Your task to perform on an android device: open a new tab in the chrome app Image 0: 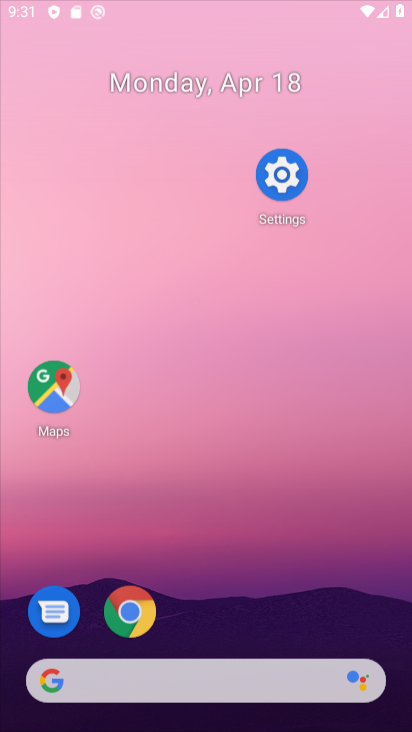
Step 0: click (143, 227)
Your task to perform on an android device: open a new tab in the chrome app Image 1: 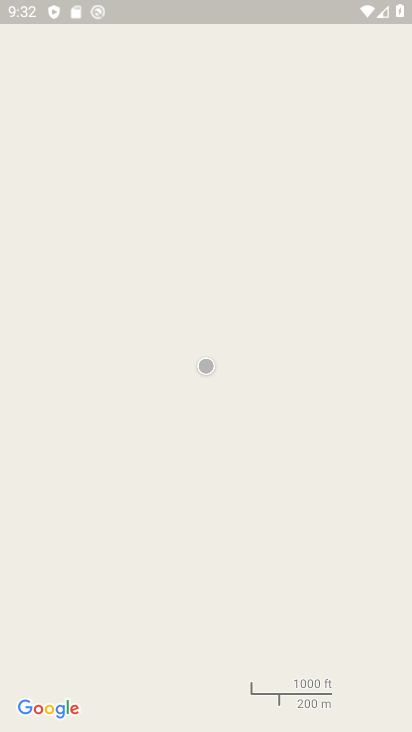
Step 1: press home button
Your task to perform on an android device: open a new tab in the chrome app Image 2: 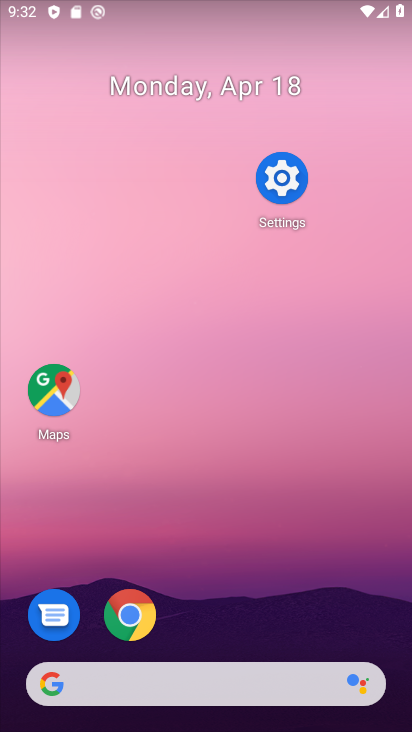
Step 2: drag from (299, 622) to (187, 0)
Your task to perform on an android device: open a new tab in the chrome app Image 3: 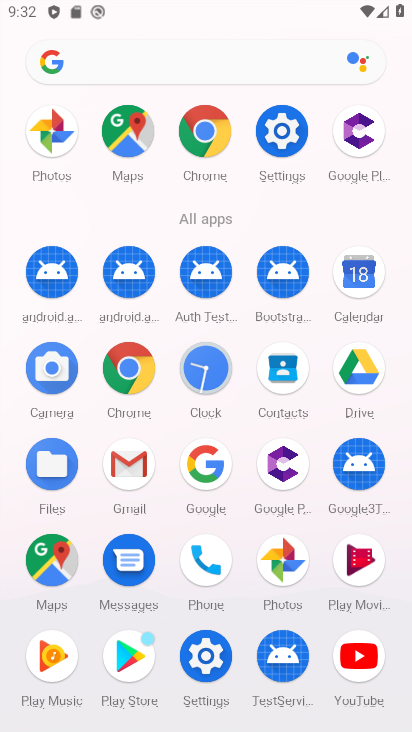
Step 3: click (203, 136)
Your task to perform on an android device: open a new tab in the chrome app Image 4: 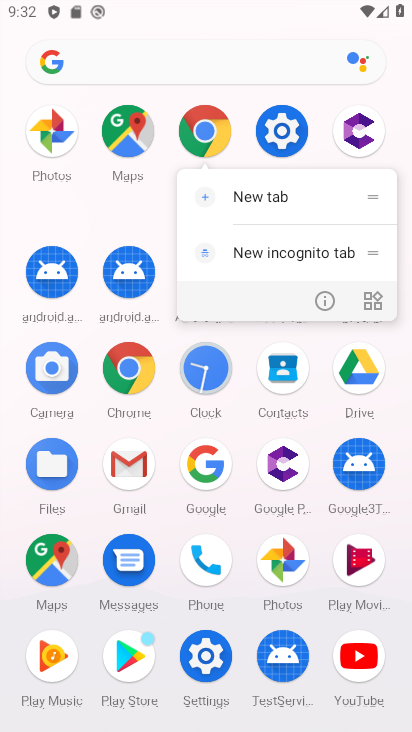
Step 4: click (203, 136)
Your task to perform on an android device: open a new tab in the chrome app Image 5: 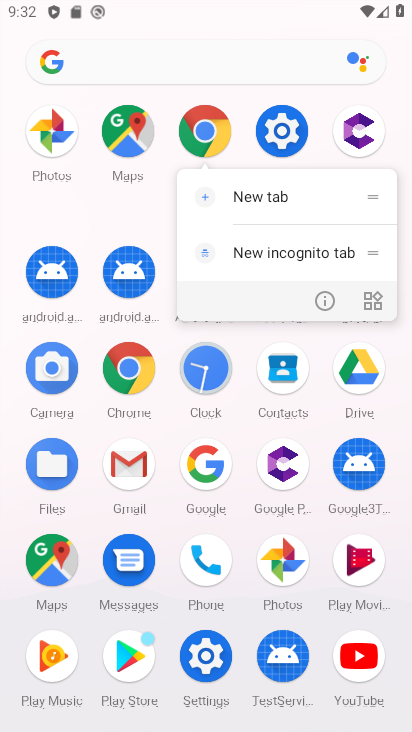
Step 5: click (223, 141)
Your task to perform on an android device: open a new tab in the chrome app Image 6: 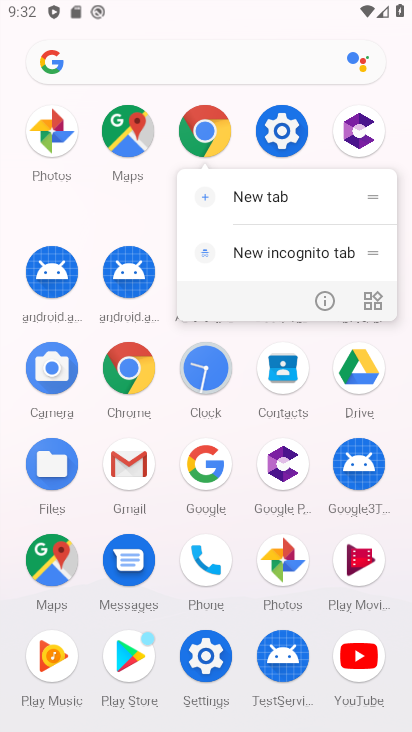
Step 6: click (207, 124)
Your task to perform on an android device: open a new tab in the chrome app Image 7: 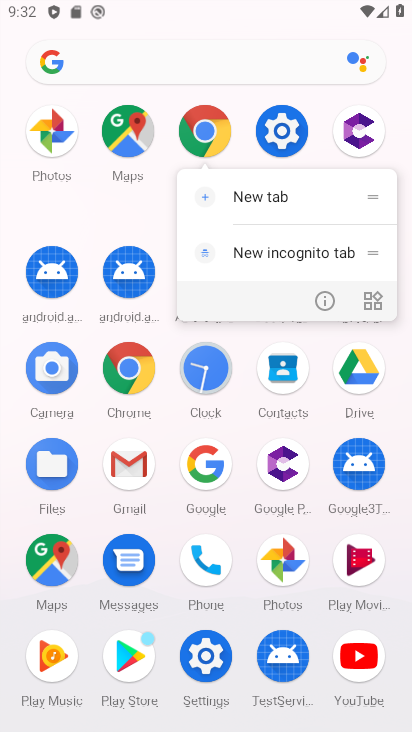
Step 7: click (207, 117)
Your task to perform on an android device: open a new tab in the chrome app Image 8: 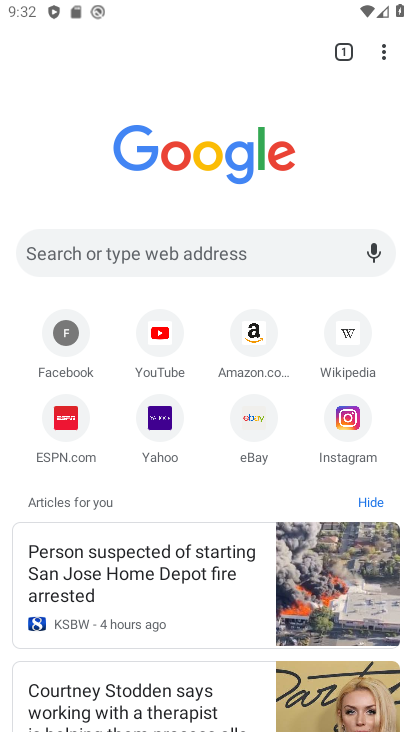
Step 8: click (385, 48)
Your task to perform on an android device: open a new tab in the chrome app Image 9: 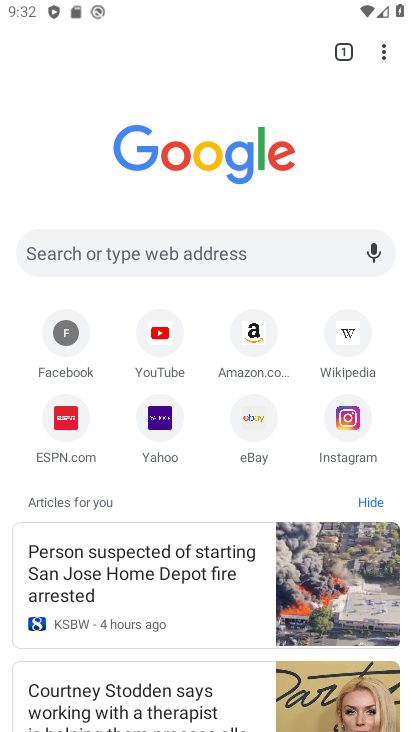
Step 9: click (384, 47)
Your task to perform on an android device: open a new tab in the chrome app Image 10: 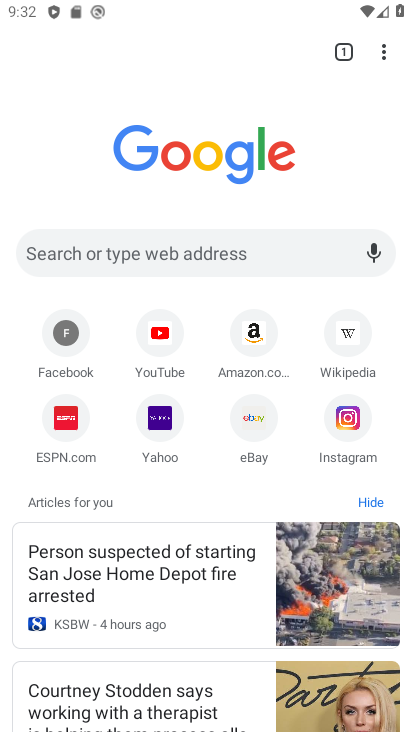
Step 10: drag from (384, 47) to (159, 524)
Your task to perform on an android device: open a new tab in the chrome app Image 11: 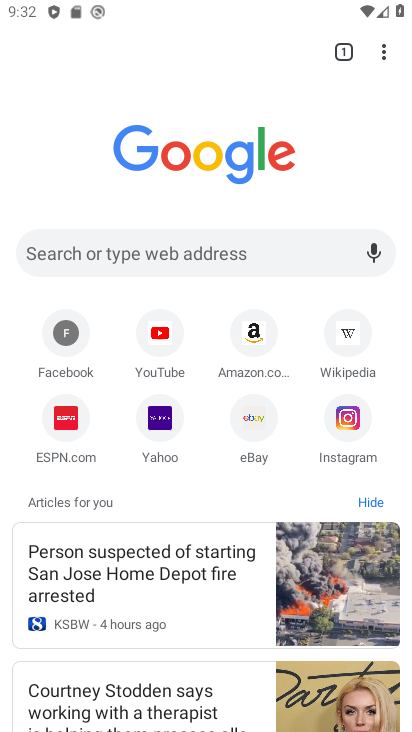
Step 11: drag from (381, 49) to (209, 515)
Your task to perform on an android device: open a new tab in the chrome app Image 12: 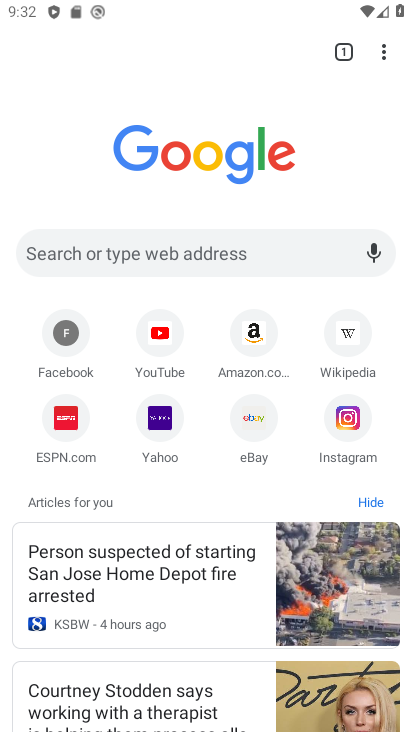
Step 12: click (374, 39)
Your task to perform on an android device: open a new tab in the chrome app Image 13: 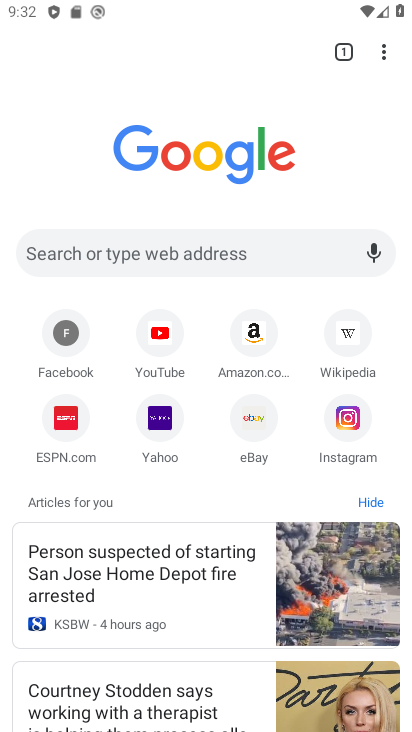
Step 13: click (391, 34)
Your task to perform on an android device: open a new tab in the chrome app Image 14: 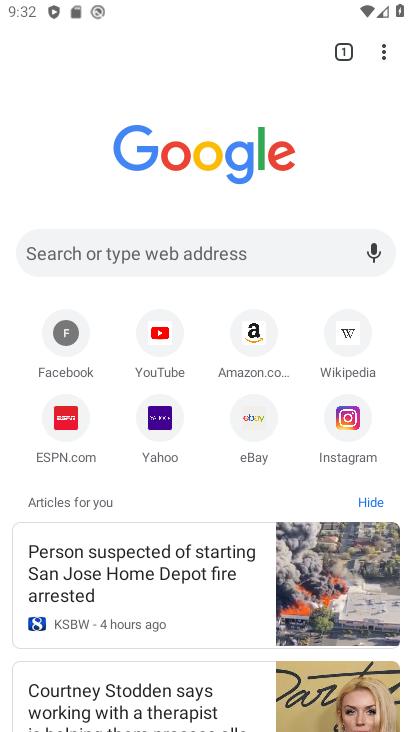
Step 14: click (228, 99)
Your task to perform on an android device: open a new tab in the chrome app Image 15: 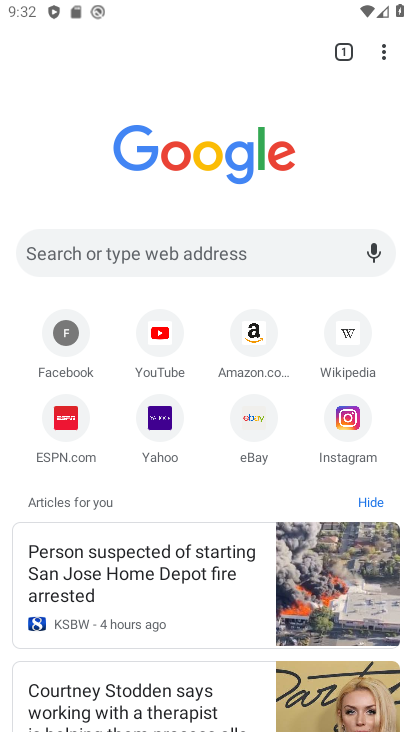
Step 15: click (379, 53)
Your task to perform on an android device: open a new tab in the chrome app Image 16: 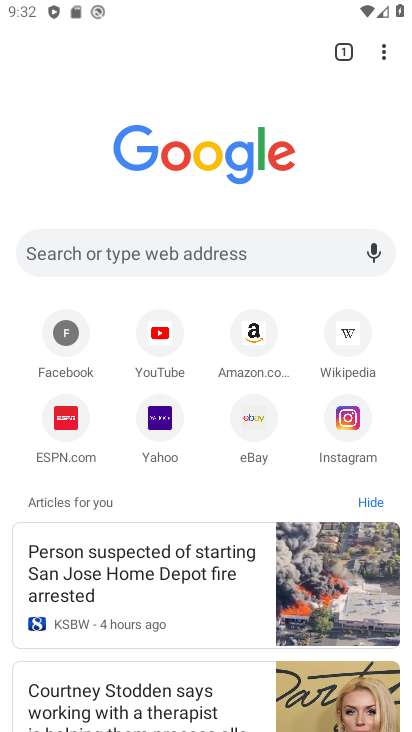
Step 16: click (386, 48)
Your task to perform on an android device: open a new tab in the chrome app Image 17: 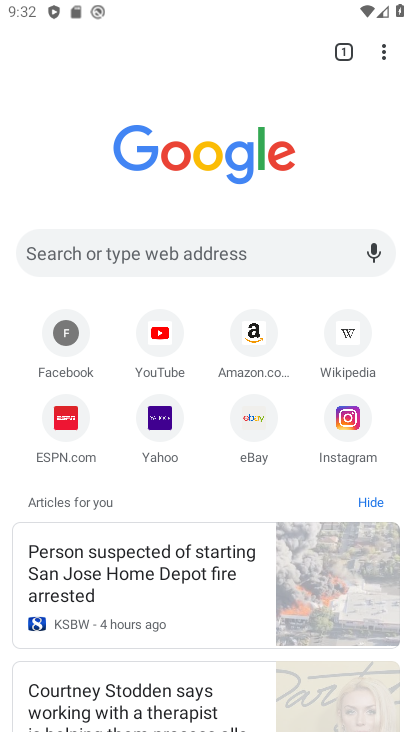
Step 17: click (225, 96)
Your task to perform on an android device: open a new tab in the chrome app Image 18: 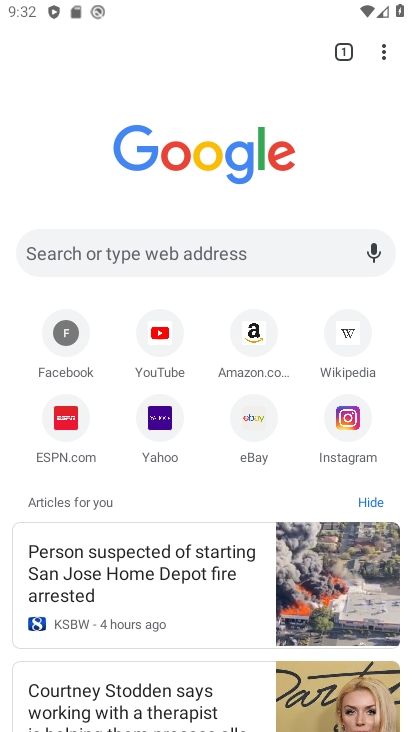
Step 18: task complete